Your task to perform on an android device: Go to Maps Image 0: 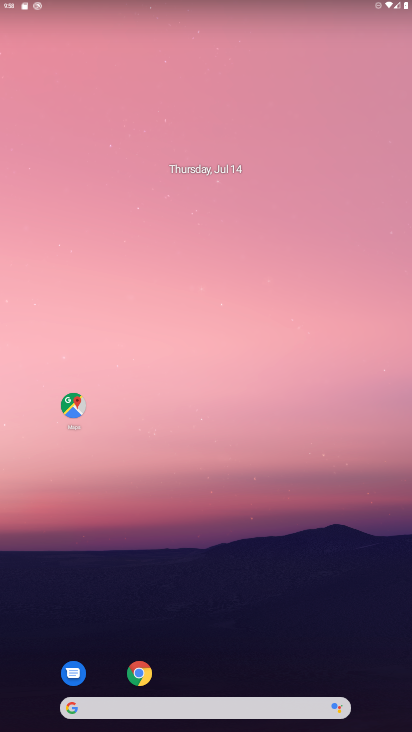
Step 0: click (67, 403)
Your task to perform on an android device: Go to Maps Image 1: 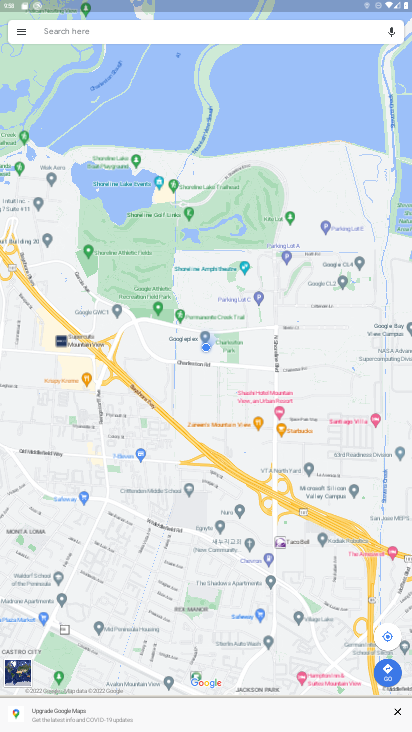
Step 1: task complete